Your task to perform on an android device: check data usage Image 0: 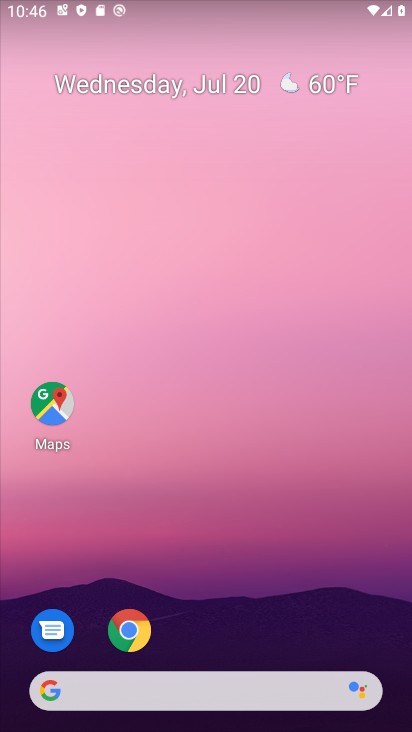
Step 0: drag from (208, 731) to (203, 142)
Your task to perform on an android device: check data usage Image 1: 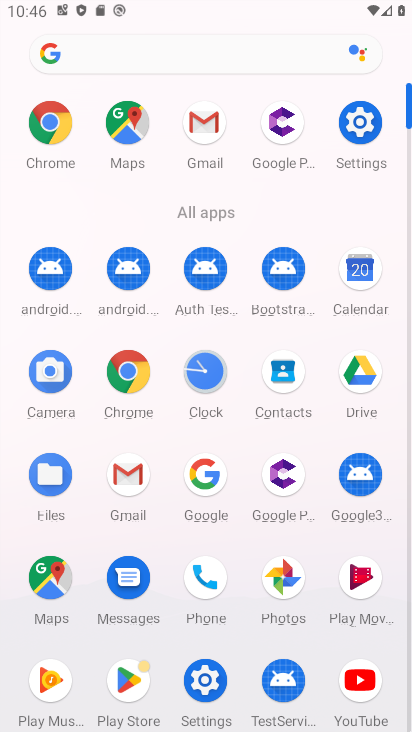
Step 1: click (364, 131)
Your task to perform on an android device: check data usage Image 2: 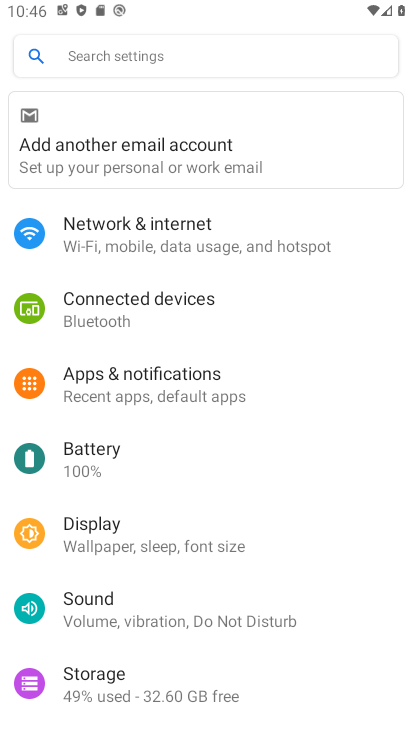
Step 2: click (102, 228)
Your task to perform on an android device: check data usage Image 3: 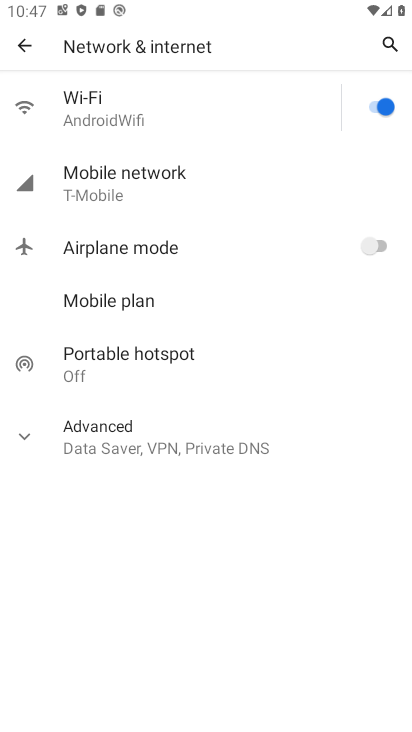
Step 3: click (95, 187)
Your task to perform on an android device: check data usage Image 4: 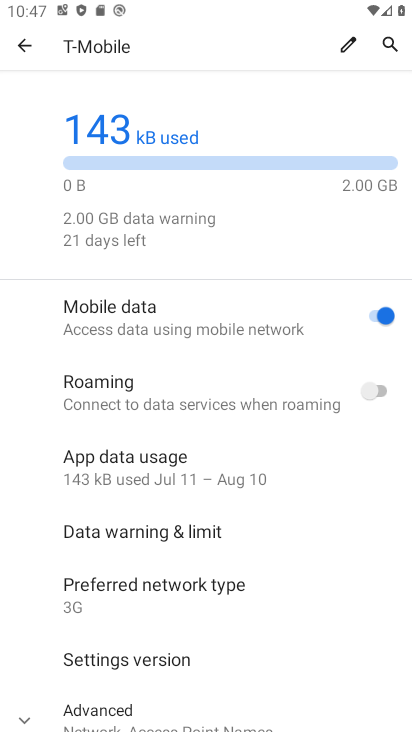
Step 4: click (147, 464)
Your task to perform on an android device: check data usage Image 5: 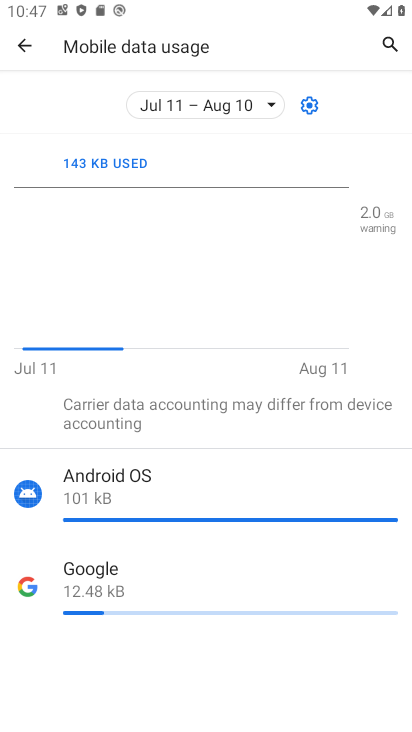
Step 5: task complete